Your task to perform on an android device: Go to location settings Image 0: 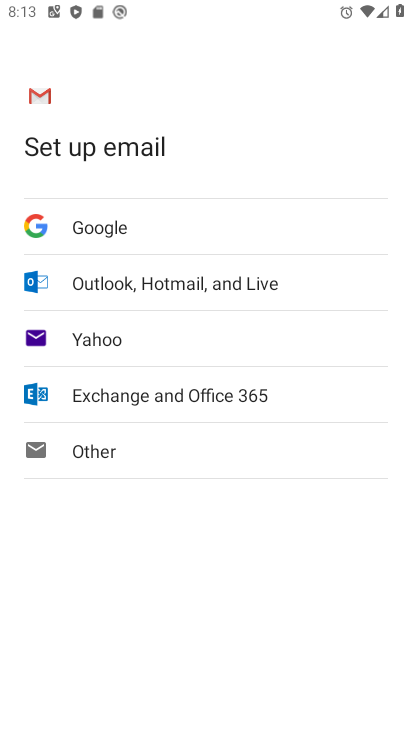
Step 0: press home button
Your task to perform on an android device: Go to location settings Image 1: 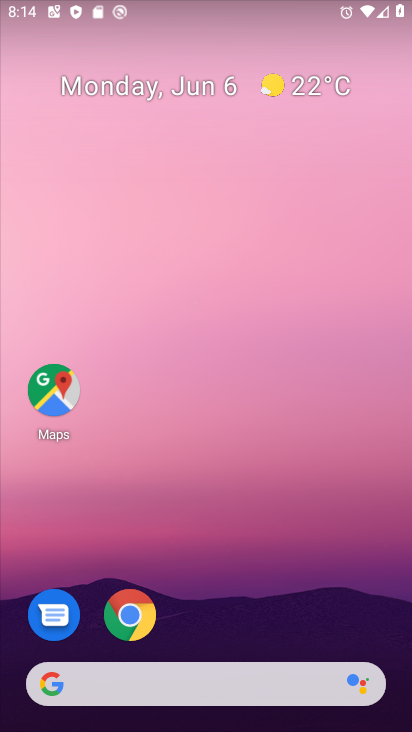
Step 1: drag from (390, 697) to (303, 38)
Your task to perform on an android device: Go to location settings Image 2: 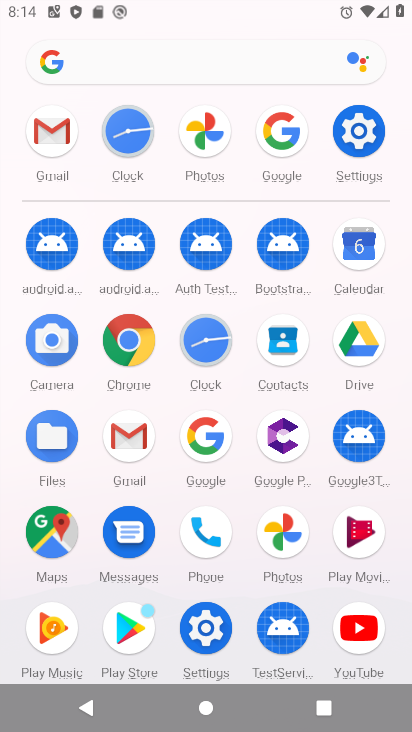
Step 2: click (354, 131)
Your task to perform on an android device: Go to location settings Image 3: 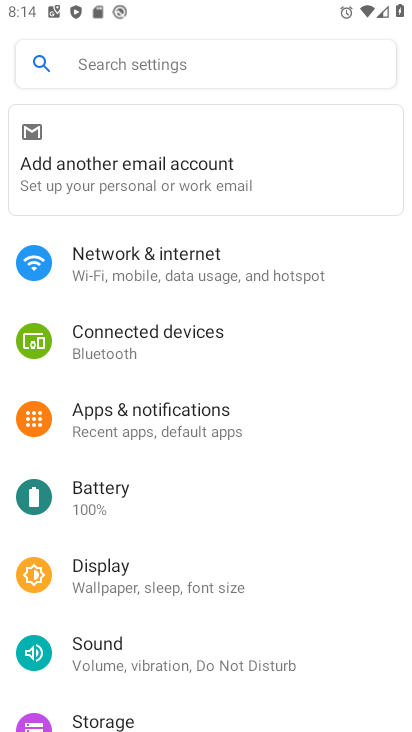
Step 3: drag from (331, 687) to (292, 219)
Your task to perform on an android device: Go to location settings Image 4: 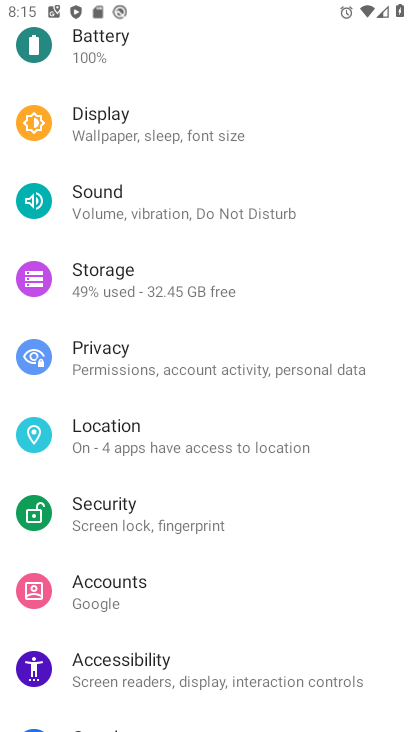
Step 4: click (119, 421)
Your task to perform on an android device: Go to location settings Image 5: 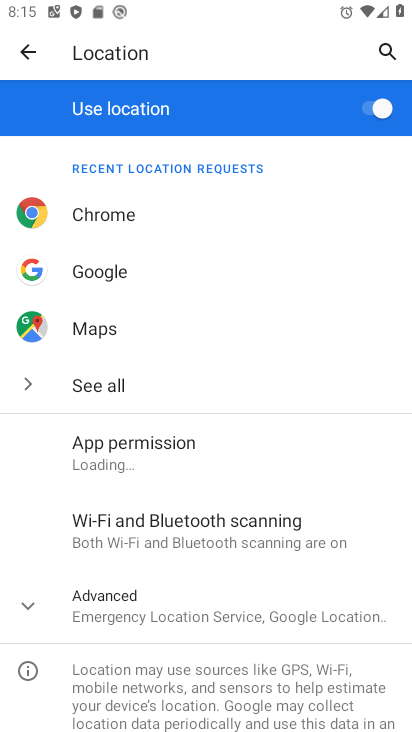
Step 5: click (36, 603)
Your task to perform on an android device: Go to location settings Image 6: 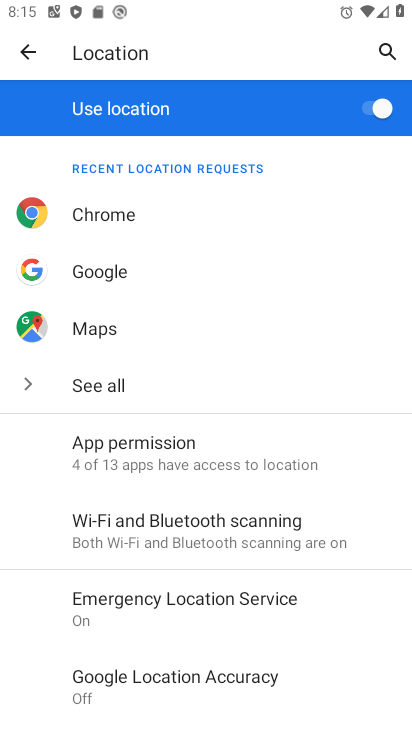
Step 6: task complete